Your task to perform on an android device: change alarm snooze length Image 0: 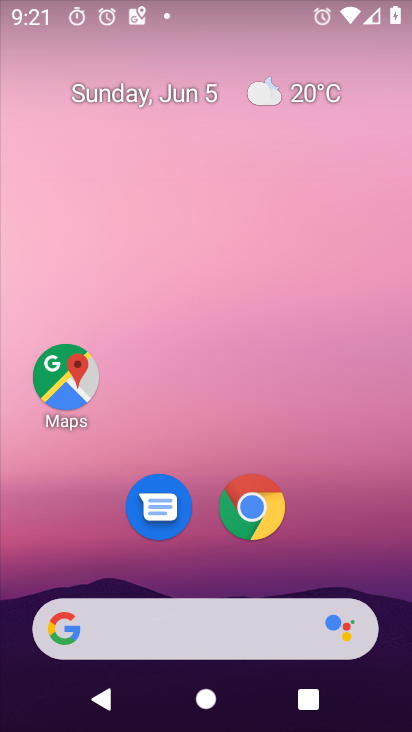
Step 0: drag from (329, 498) to (197, 31)
Your task to perform on an android device: change alarm snooze length Image 1: 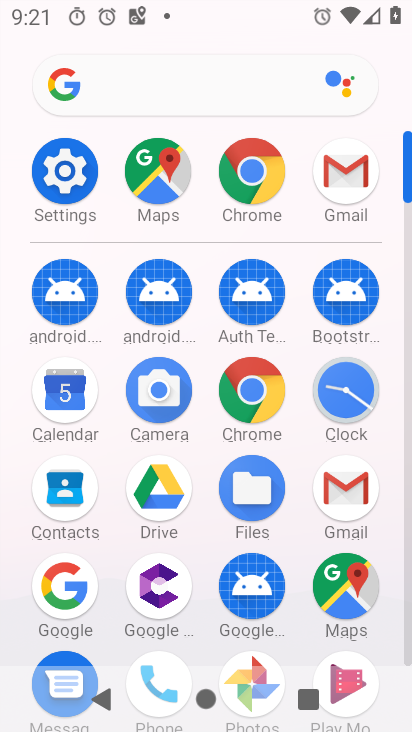
Step 1: drag from (7, 552) to (0, 394)
Your task to perform on an android device: change alarm snooze length Image 2: 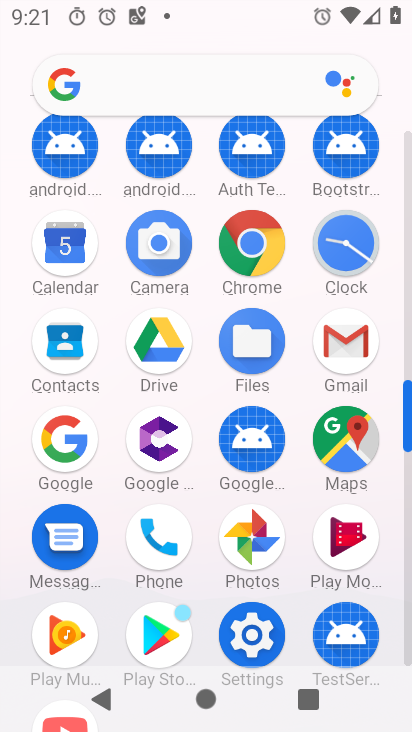
Step 2: drag from (15, 600) to (17, 331)
Your task to perform on an android device: change alarm snooze length Image 3: 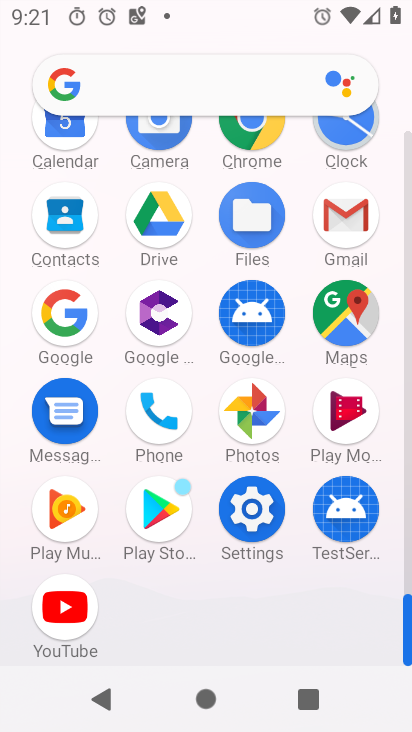
Step 3: drag from (302, 176) to (261, 413)
Your task to perform on an android device: change alarm snooze length Image 4: 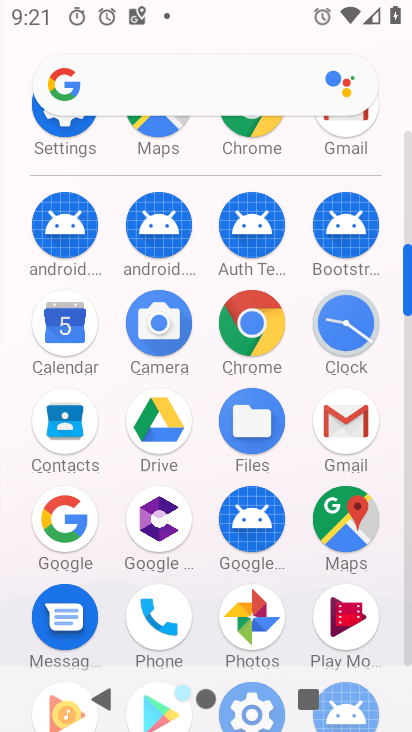
Step 4: click (346, 321)
Your task to perform on an android device: change alarm snooze length Image 5: 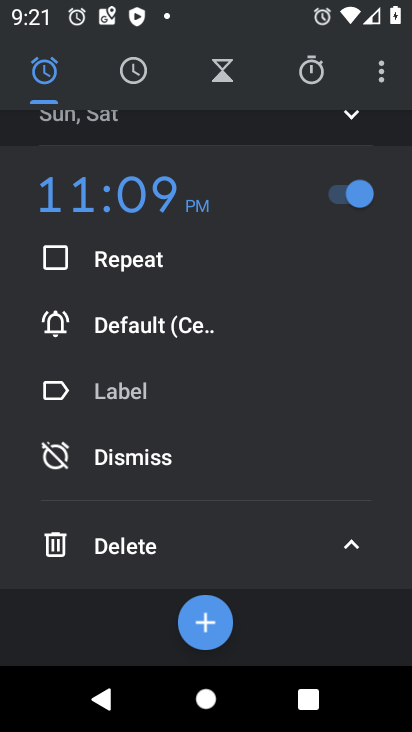
Step 5: drag from (379, 72) to (277, 137)
Your task to perform on an android device: change alarm snooze length Image 6: 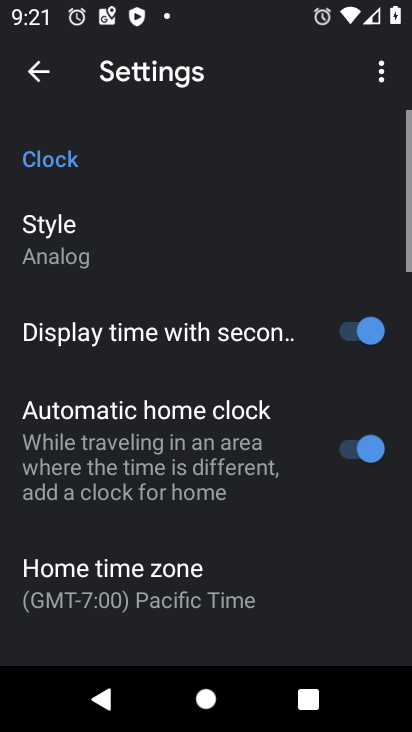
Step 6: drag from (159, 573) to (160, 182)
Your task to perform on an android device: change alarm snooze length Image 7: 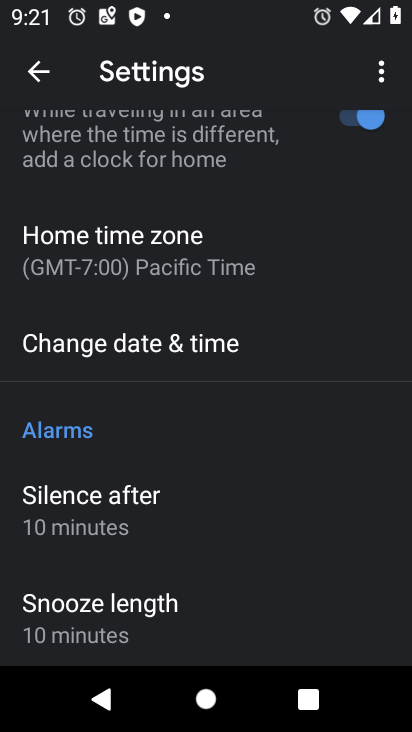
Step 7: click (124, 630)
Your task to perform on an android device: change alarm snooze length Image 8: 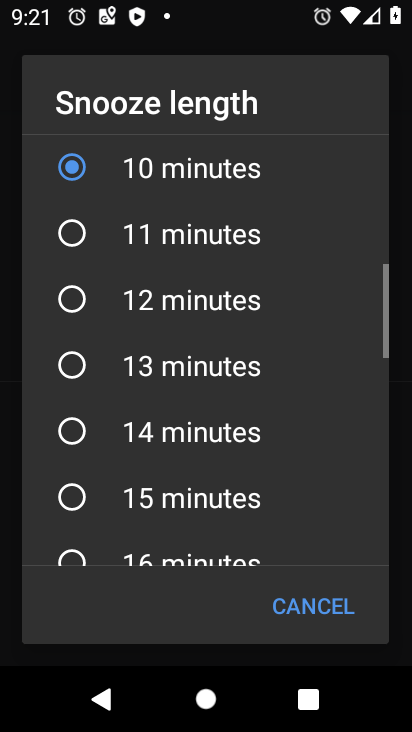
Step 8: click (115, 239)
Your task to perform on an android device: change alarm snooze length Image 9: 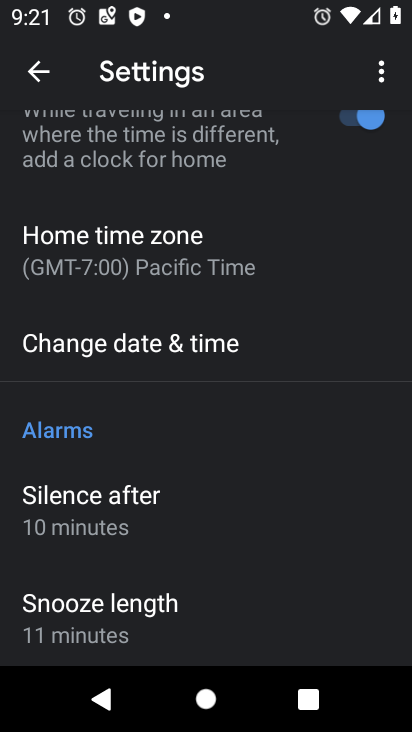
Step 9: task complete